Your task to perform on an android device: see tabs open on other devices in the chrome app Image 0: 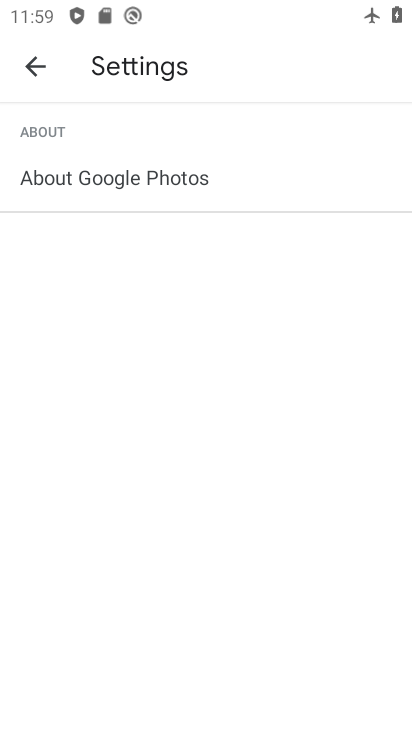
Step 0: press home button
Your task to perform on an android device: see tabs open on other devices in the chrome app Image 1: 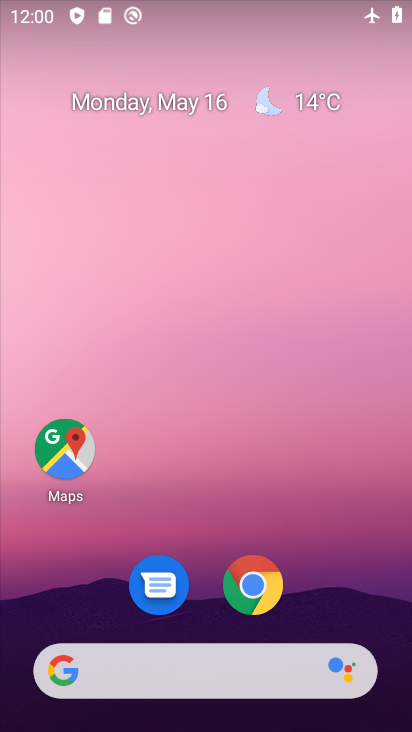
Step 1: click (259, 596)
Your task to perform on an android device: see tabs open on other devices in the chrome app Image 2: 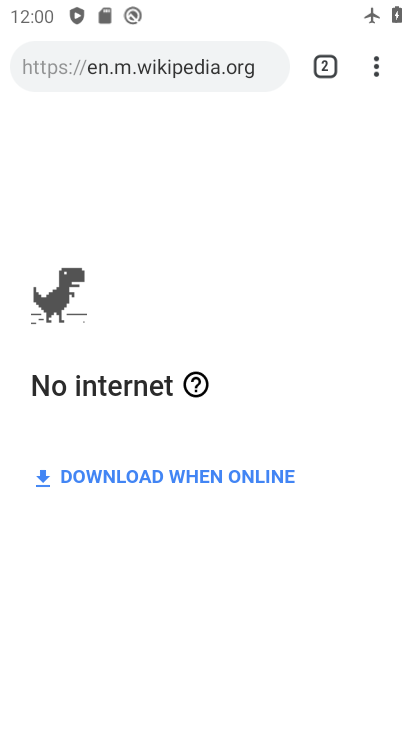
Step 2: click (372, 68)
Your task to perform on an android device: see tabs open on other devices in the chrome app Image 3: 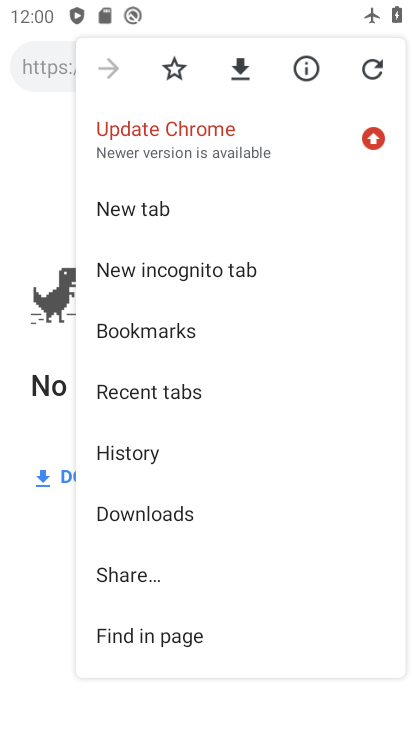
Step 3: click (166, 391)
Your task to perform on an android device: see tabs open on other devices in the chrome app Image 4: 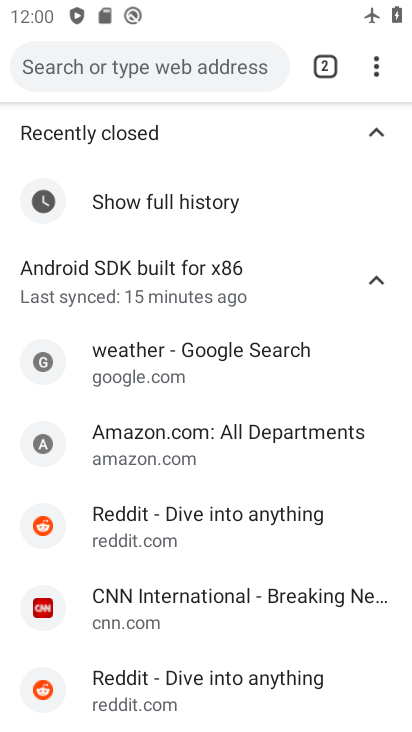
Step 4: task complete